Your task to perform on an android device: toggle show notifications on the lock screen Image 0: 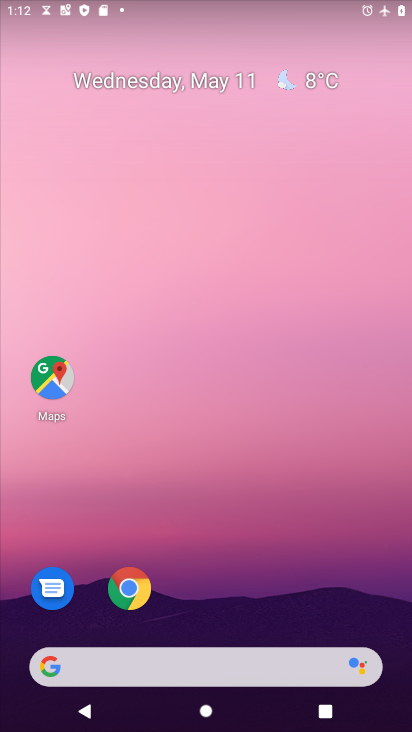
Step 0: drag from (307, 616) to (266, 64)
Your task to perform on an android device: toggle show notifications on the lock screen Image 1: 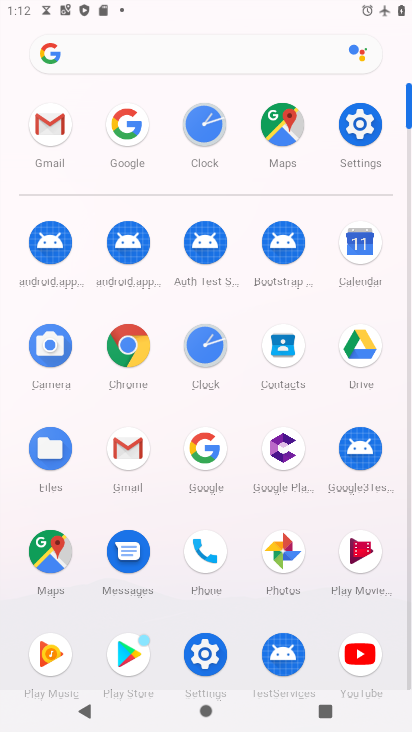
Step 1: click (359, 132)
Your task to perform on an android device: toggle show notifications on the lock screen Image 2: 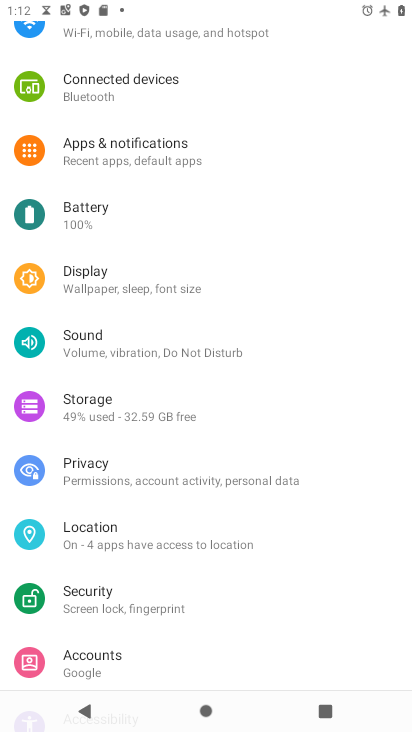
Step 2: click (111, 156)
Your task to perform on an android device: toggle show notifications on the lock screen Image 3: 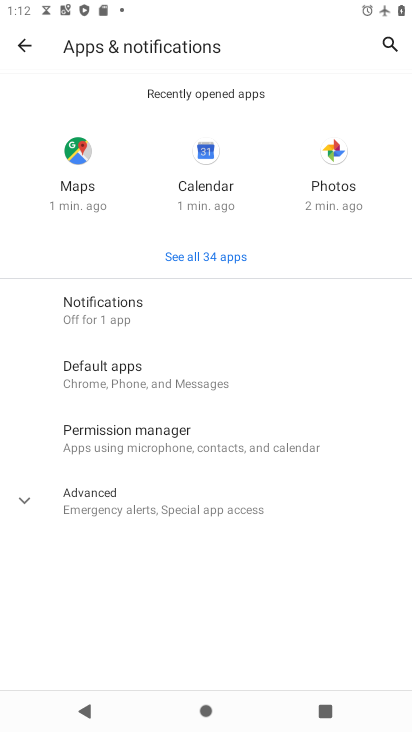
Step 3: click (85, 316)
Your task to perform on an android device: toggle show notifications on the lock screen Image 4: 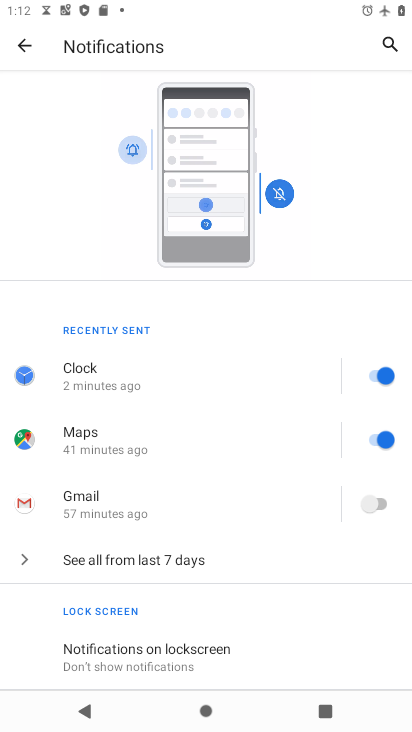
Step 4: click (133, 651)
Your task to perform on an android device: toggle show notifications on the lock screen Image 5: 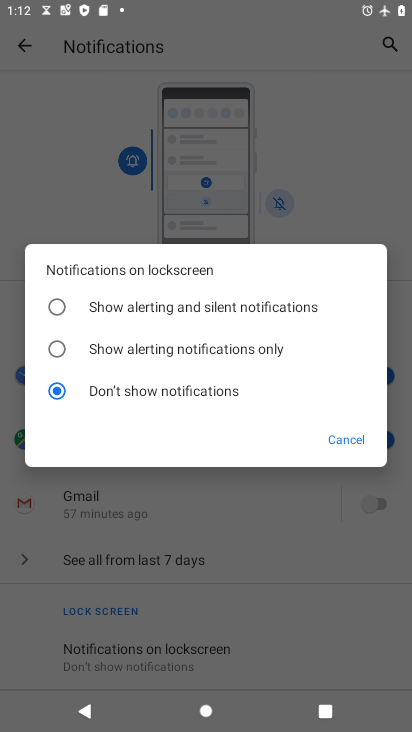
Step 5: click (59, 312)
Your task to perform on an android device: toggle show notifications on the lock screen Image 6: 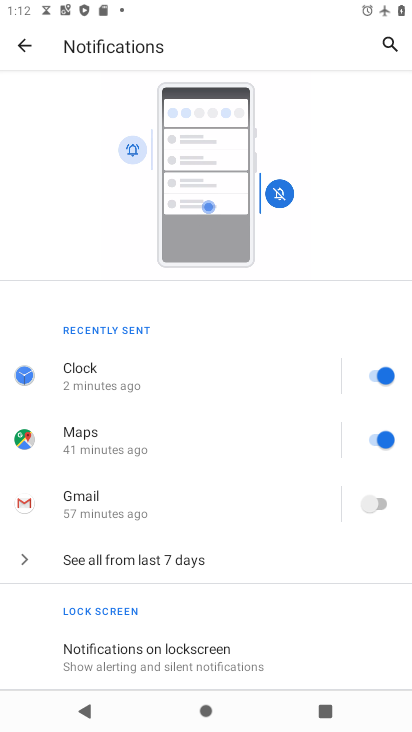
Step 6: task complete